Your task to perform on an android device: open app "HBO Max: Stream TV & Movies" Image 0: 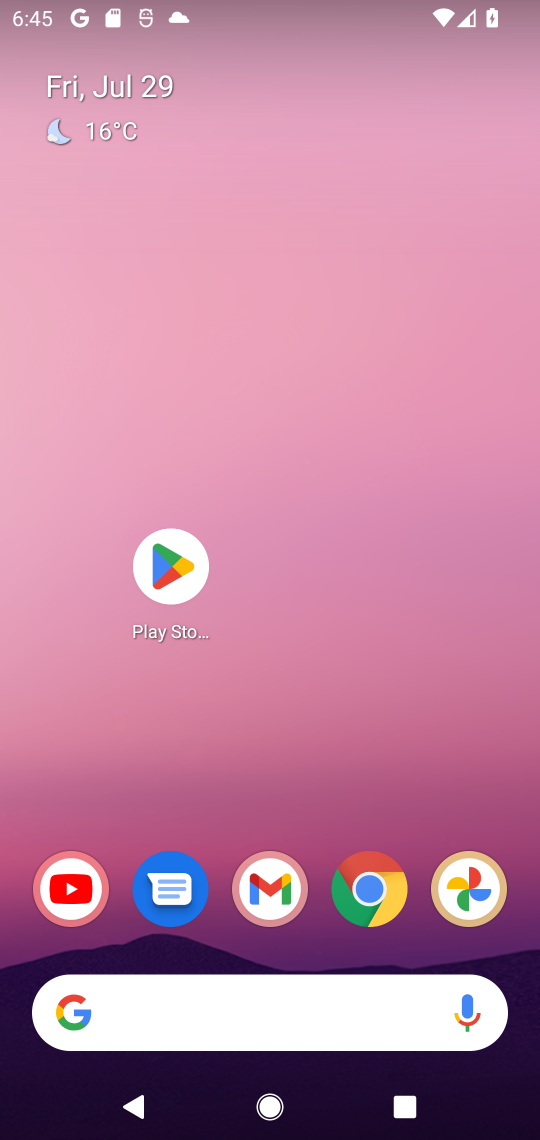
Step 0: press home button
Your task to perform on an android device: open app "HBO Max: Stream TV & Movies" Image 1: 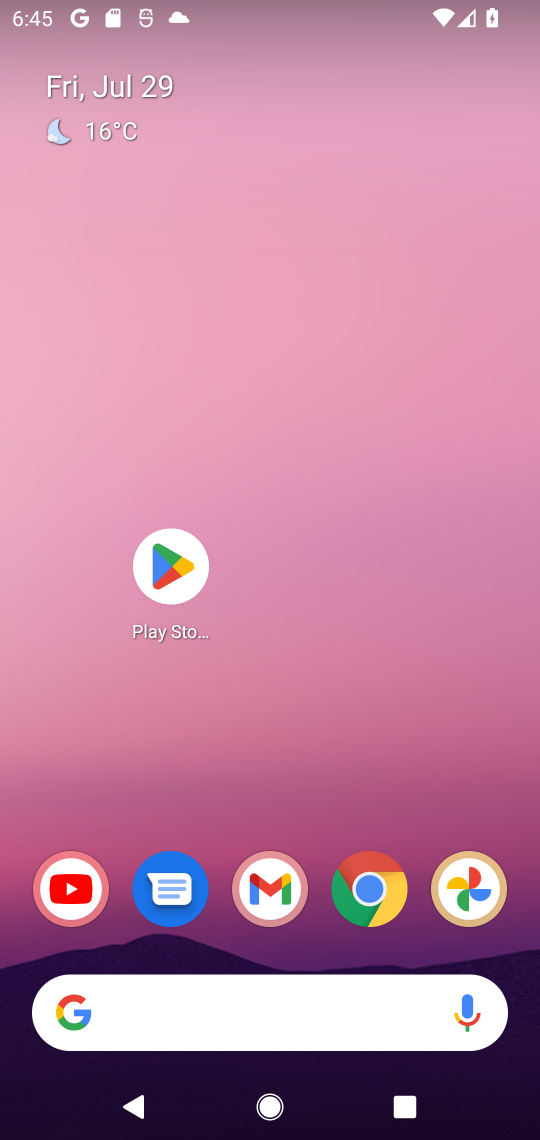
Step 1: click (159, 565)
Your task to perform on an android device: open app "HBO Max: Stream TV & Movies" Image 2: 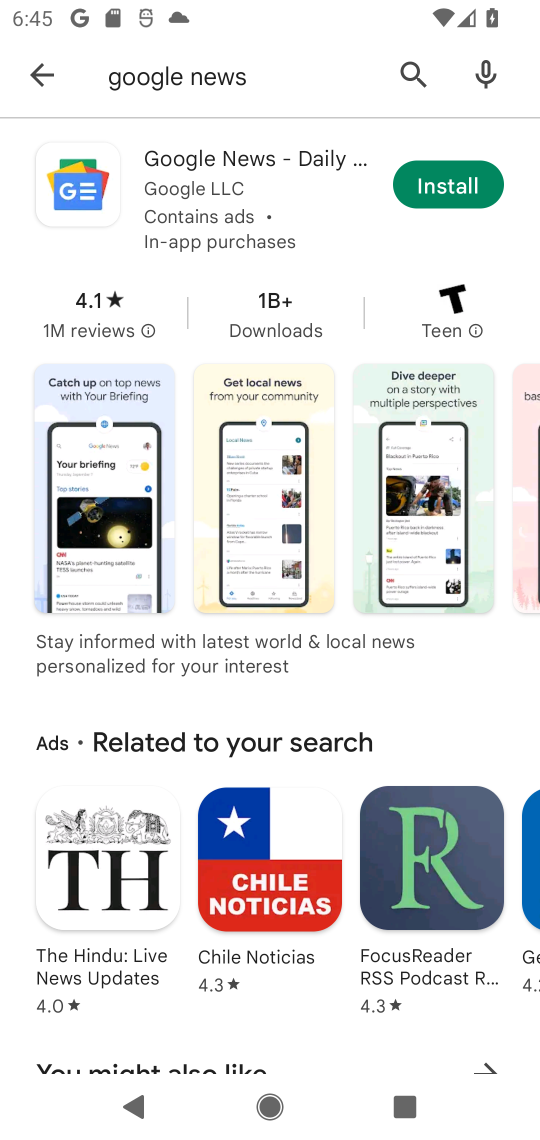
Step 2: click (410, 64)
Your task to perform on an android device: open app "HBO Max: Stream TV & Movies" Image 3: 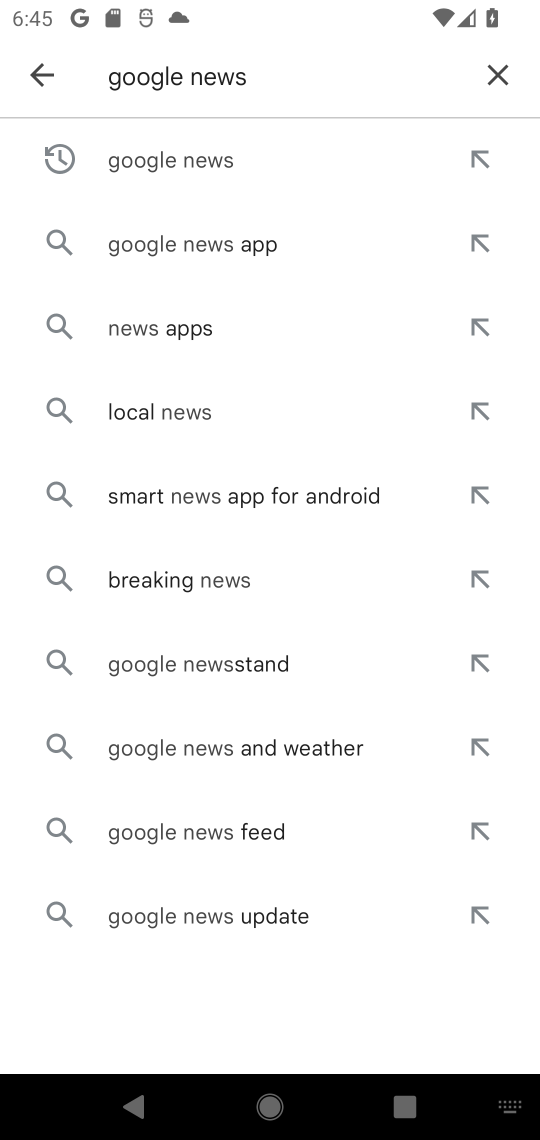
Step 3: click (496, 71)
Your task to perform on an android device: open app "HBO Max: Stream TV & Movies" Image 4: 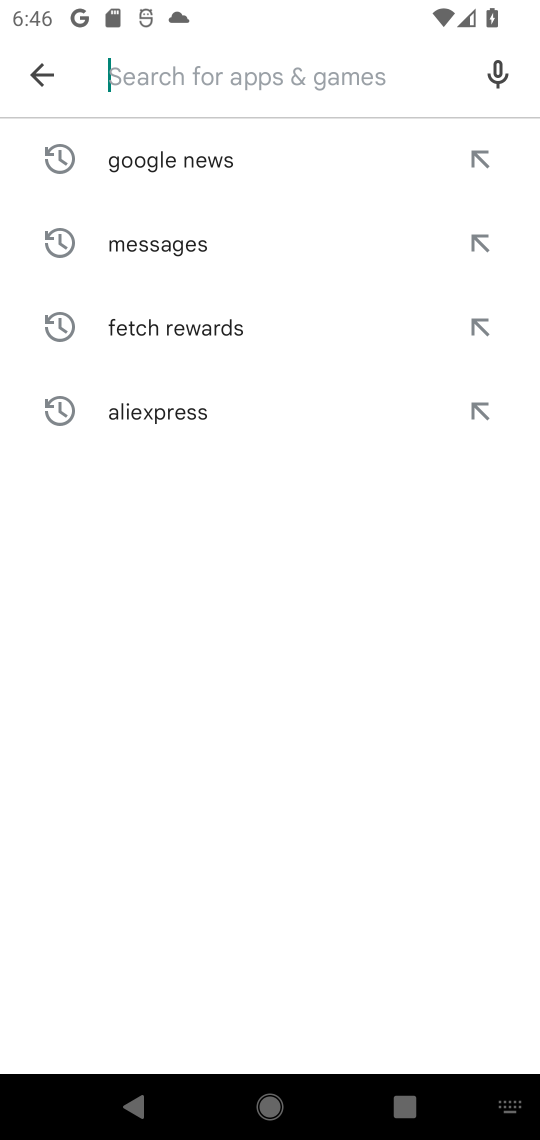
Step 4: type "HBO Max: Stream TV & Movies"
Your task to perform on an android device: open app "HBO Max: Stream TV & Movies" Image 5: 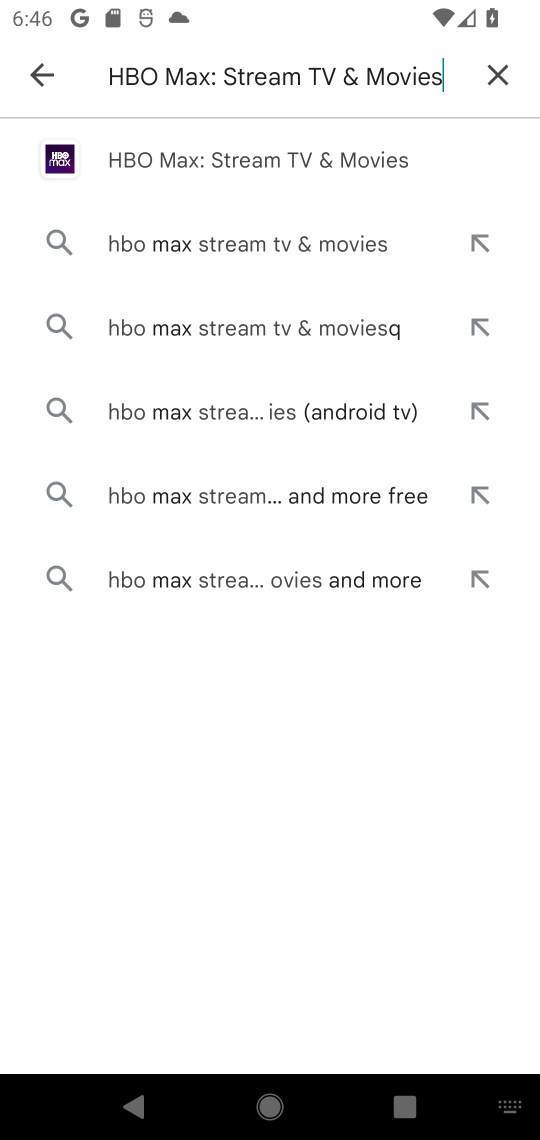
Step 5: click (270, 165)
Your task to perform on an android device: open app "HBO Max: Stream TV & Movies" Image 6: 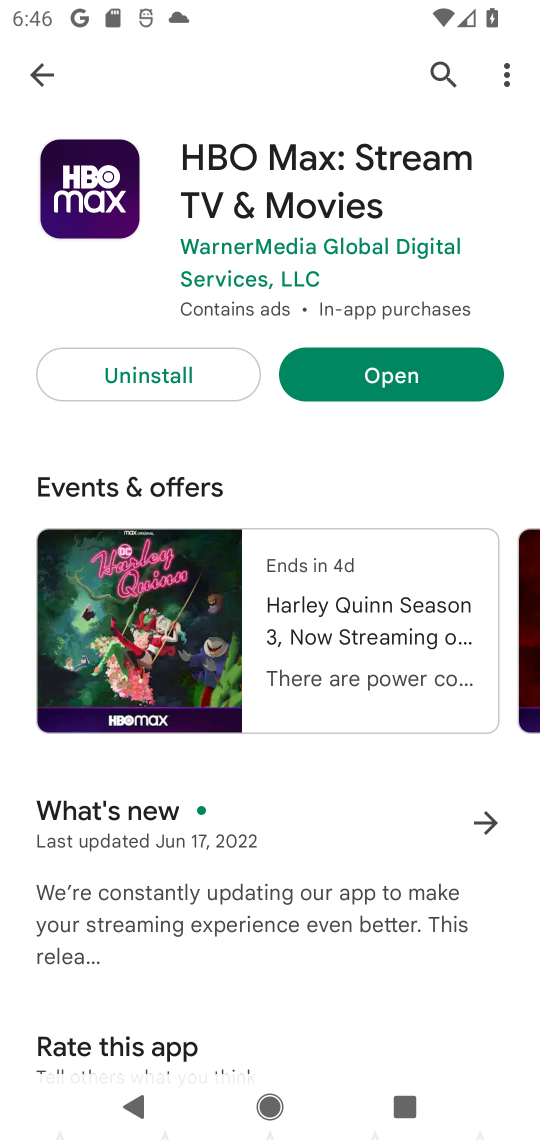
Step 6: click (416, 390)
Your task to perform on an android device: open app "HBO Max: Stream TV & Movies" Image 7: 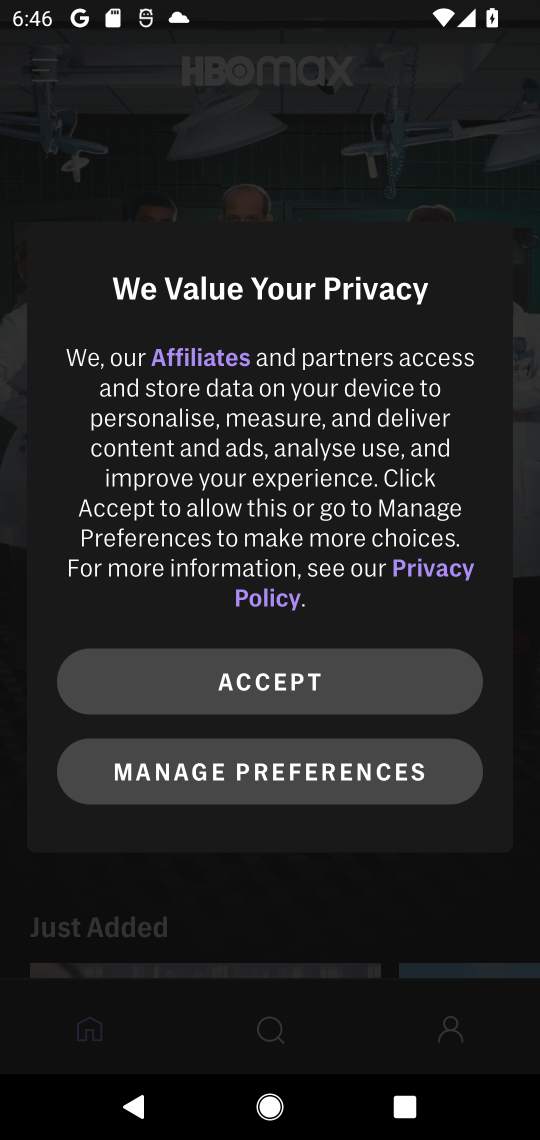
Step 7: task complete